Your task to perform on an android device: Open my contact list Image 0: 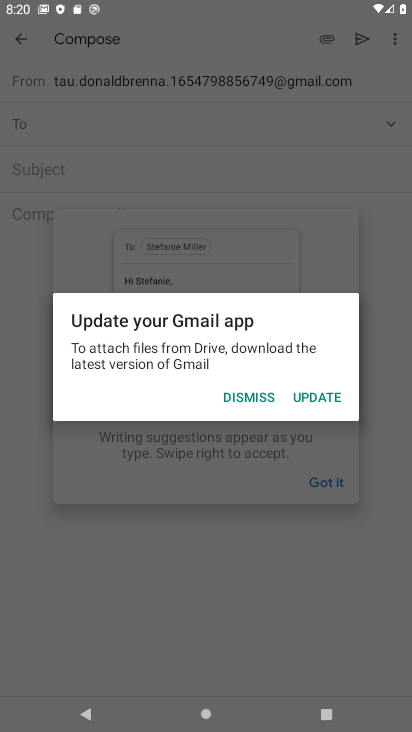
Step 0: press home button
Your task to perform on an android device: Open my contact list Image 1: 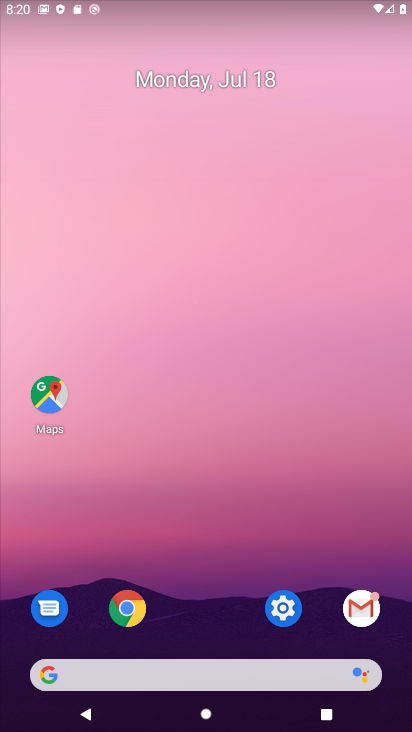
Step 1: drag from (282, 697) to (237, 258)
Your task to perform on an android device: Open my contact list Image 2: 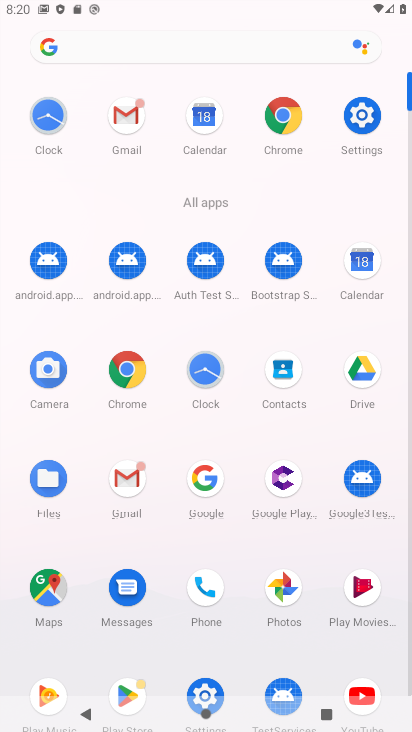
Step 2: click (204, 588)
Your task to perform on an android device: Open my contact list Image 3: 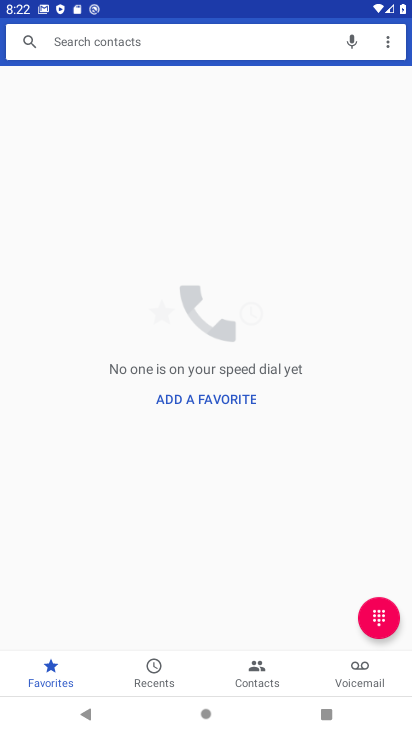
Step 3: click (244, 677)
Your task to perform on an android device: Open my contact list Image 4: 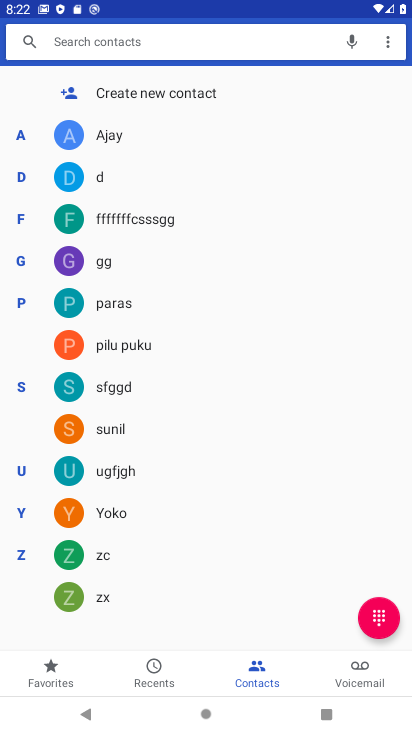
Step 4: click (257, 664)
Your task to perform on an android device: Open my contact list Image 5: 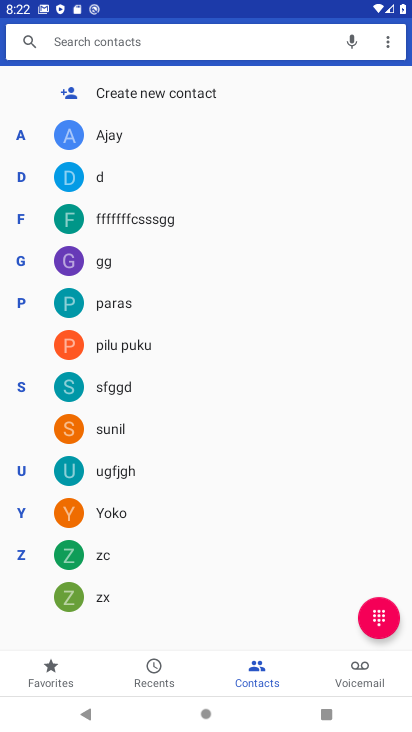
Step 5: task complete